Your task to perform on an android device: Open the map Image 0: 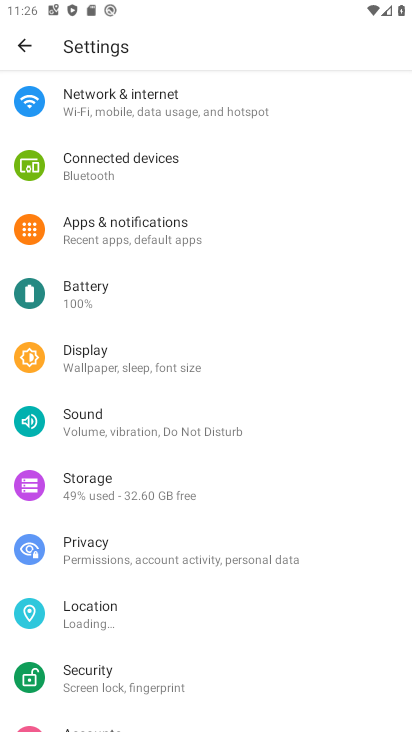
Step 0: press home button
Your task to perform on an android device: Open the map Image 1: 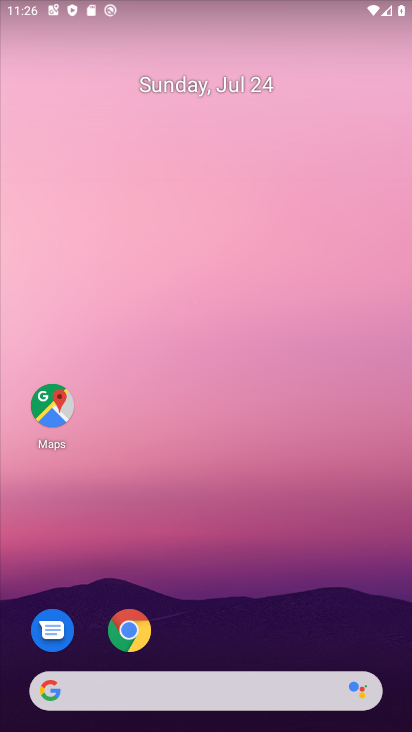
Step 1: click (45, 420)
Your task to perform on an android device: Open the map Image 2: 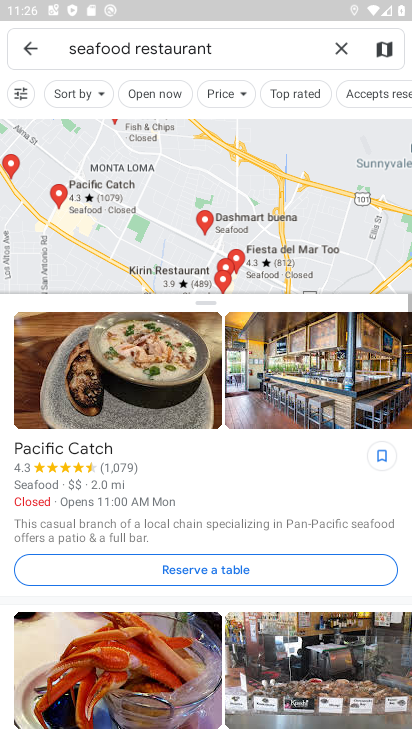
Step 2: task complete